Your task to perform on an android device: see sites visited before in the chrome app Image 0: 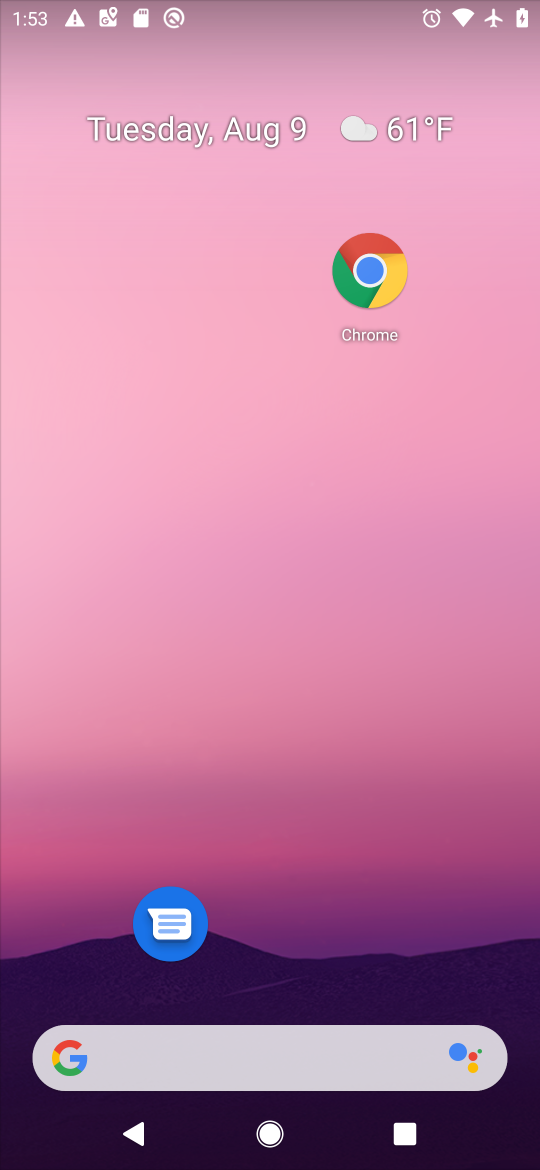
Step 0: click (349, 284)
Your task to perform on an android device: see sites visited before in the chrome app Image 1: 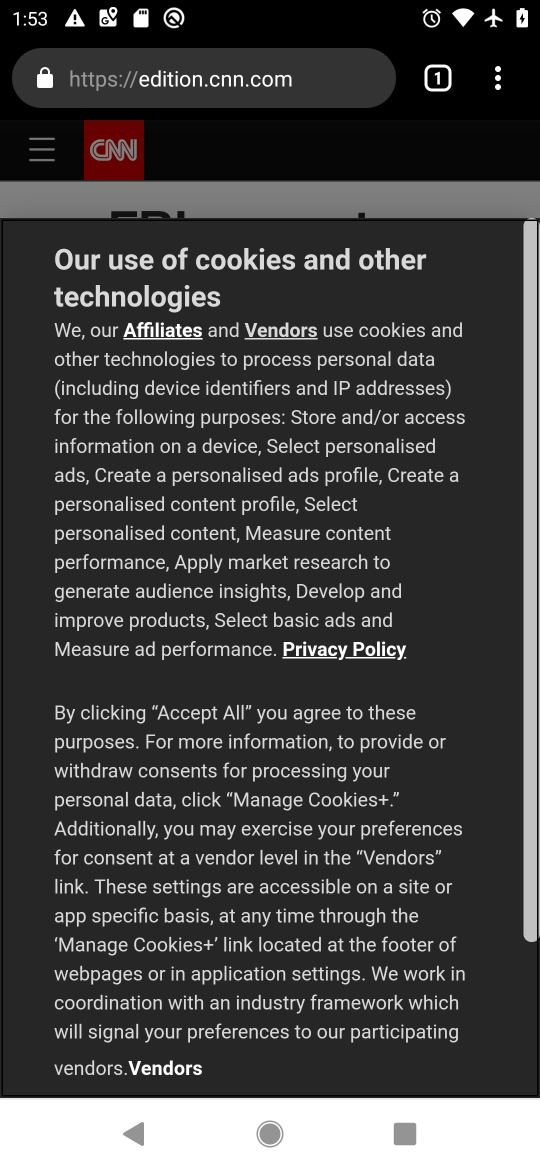
Step 1: click (502, 88)
Your task to perform on an android device: see sites visited before in the chrome app Image 2: 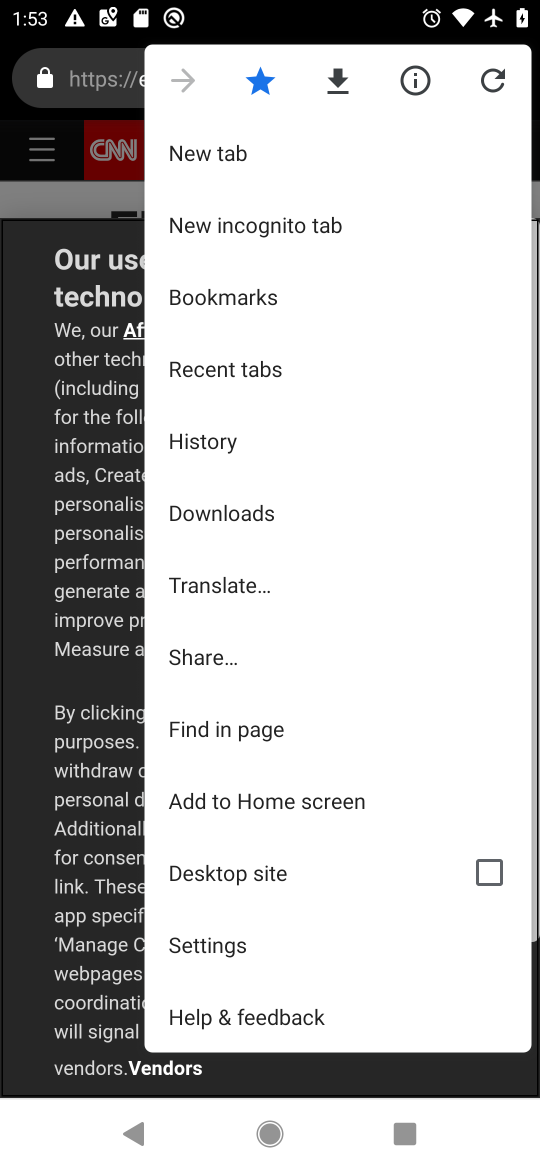
Step 2: click (250, 367)
Your task to perform on an android device: see sites visited before in the chrome app Image 3: 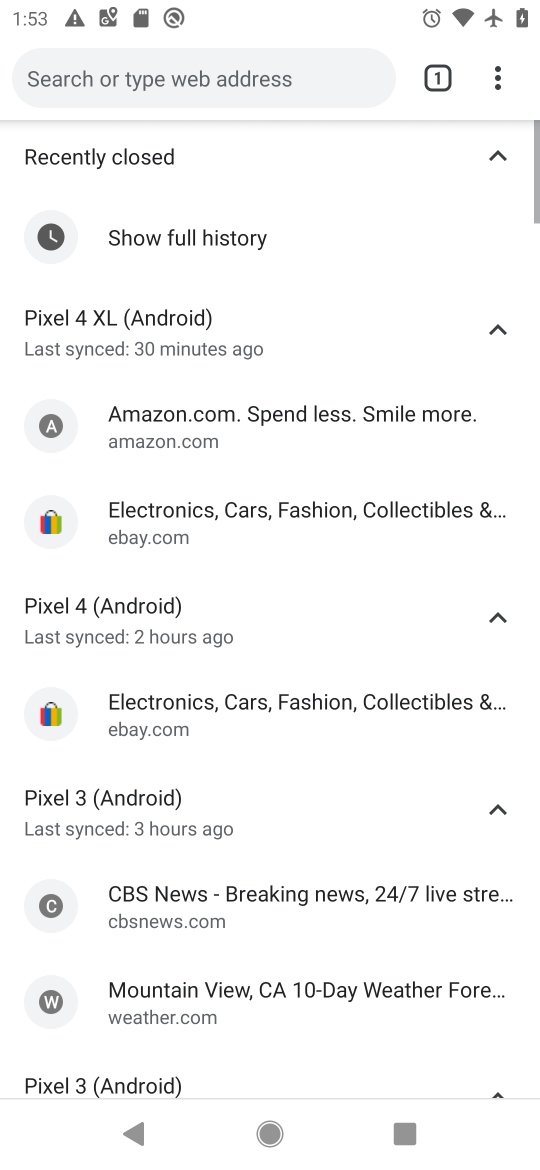
Step 3: task complete